Your task to perform on an android device: turn on notifications settings in the gmail app Image 0: 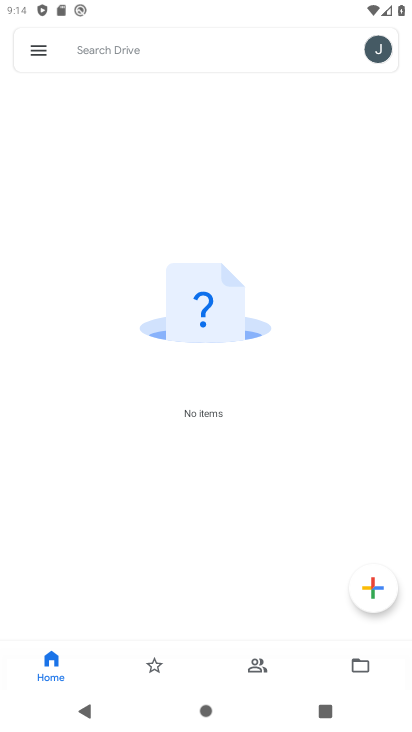
Step 0: press home button
Your task to perform on an android device: turn on notifications settings in the gmail app Image 1: 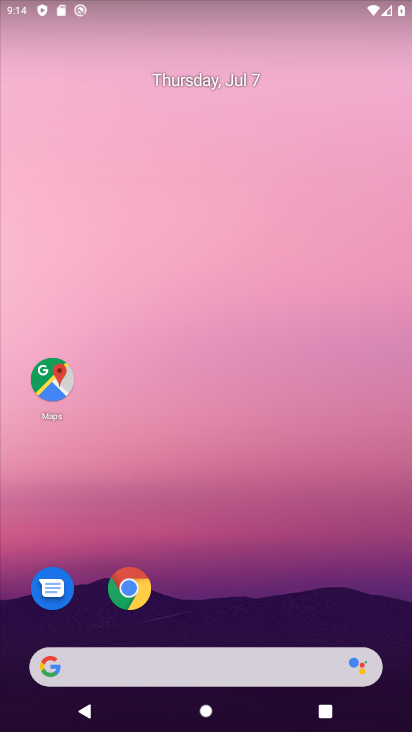
Step 1: drag from (303, 680) to (206, 222)
Your task to perform on an android device: turn on notifications settings in the gmail app Image 2: 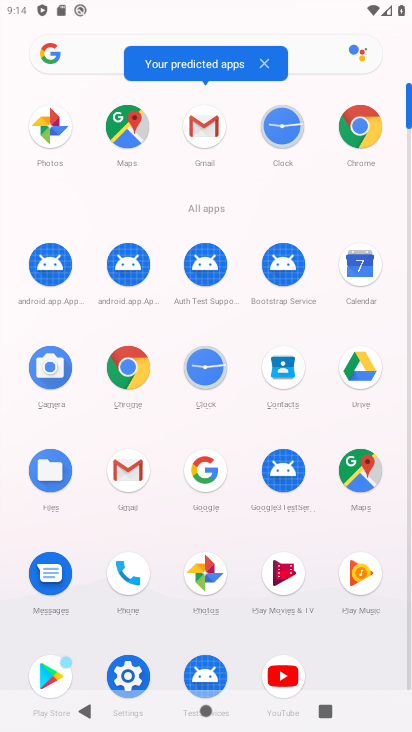
Step 2: drag from (201, 119) to (335, 639)
Your task to perform on an android device: turn on notifications settings in the gmail app Image 3: 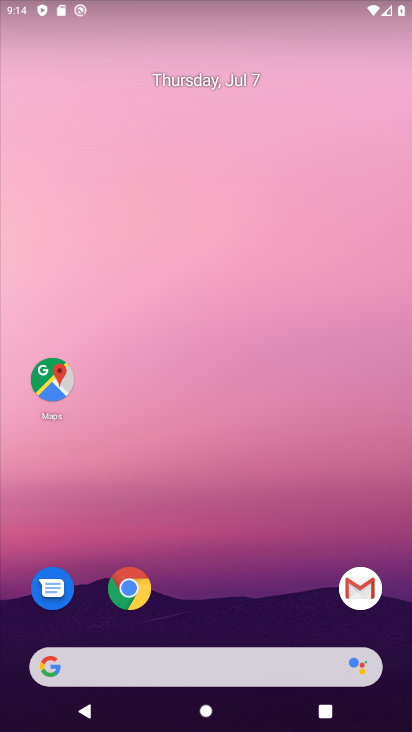
Step 3: click (358, 587)
Your task to perform on an android device: turn on notifications settings in the gmail app Image 4: 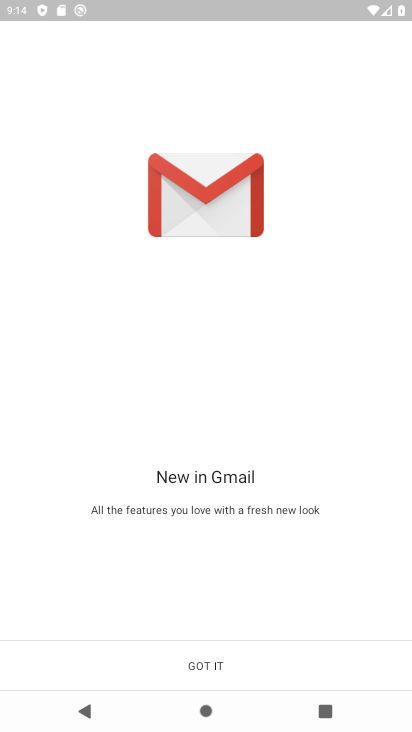
Step 4: click (207, 657)
Your task to perform on an android device: turn on notifications settings in the gmail app Image 5: 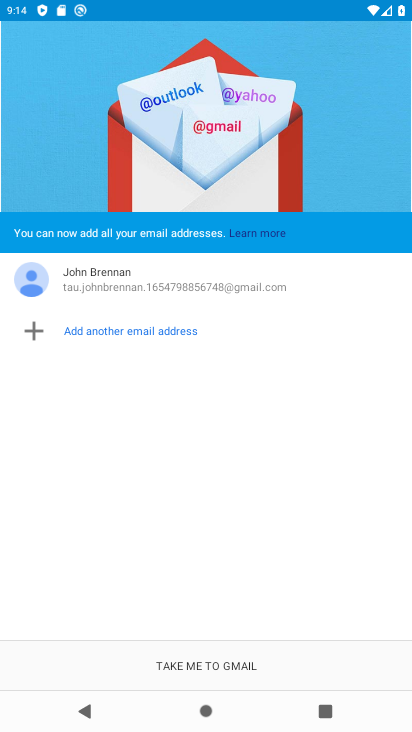
Step 5: click (210, 659)
Your task to perform on an android device: turn on notifications settings in the gmail app Image 6: 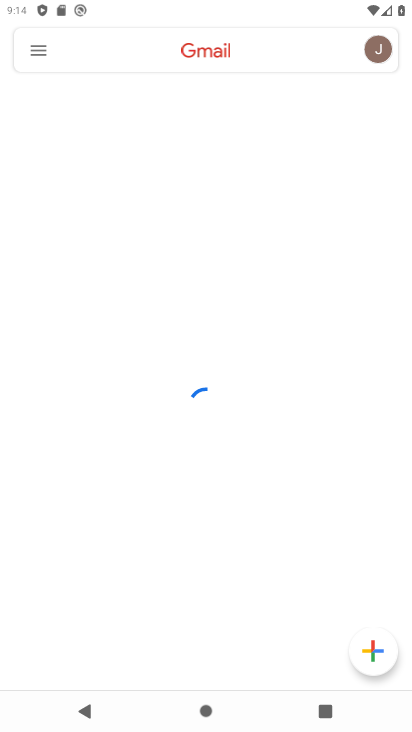
Step 6: click (35, 51)
Your task to perform on an android device: turn on notifications settings in the gmail app Image 7: 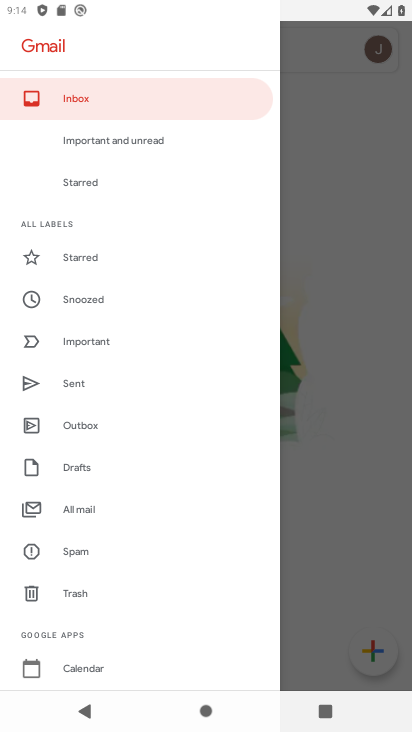
Step 7: drag from (67, 519) to (88, 410)
Your task to perform on an android device: turn on notifications settings in the gmail app Image 8: 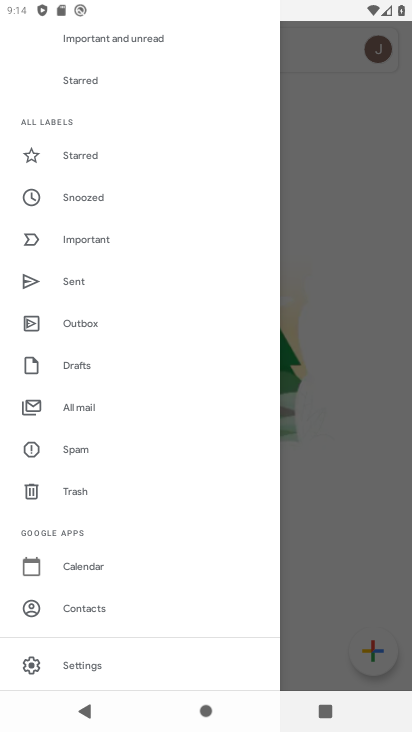
Step 8: click (82, 659)
Your task to perform on an android device: turn on notifications settings in the gmail app Image 9: 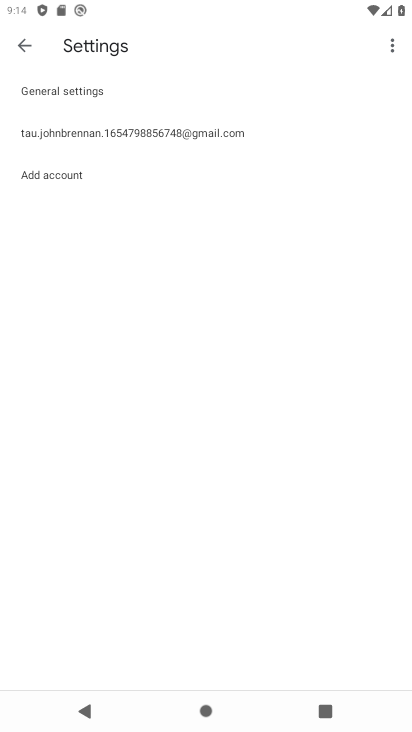
Step 9: click (91, 131)
Your task to perform on an android device: turn on notifications settings in the gmail app Image 10: 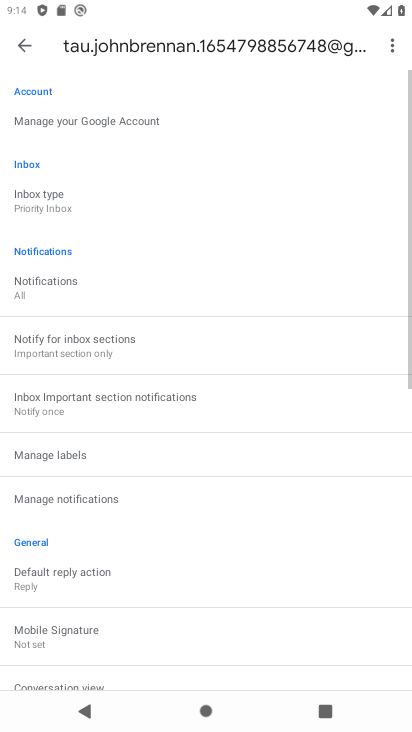
Step 10: click (73, 300)
Your task to perform on an android device: turn on notifications settings in the gmail app Image 11: 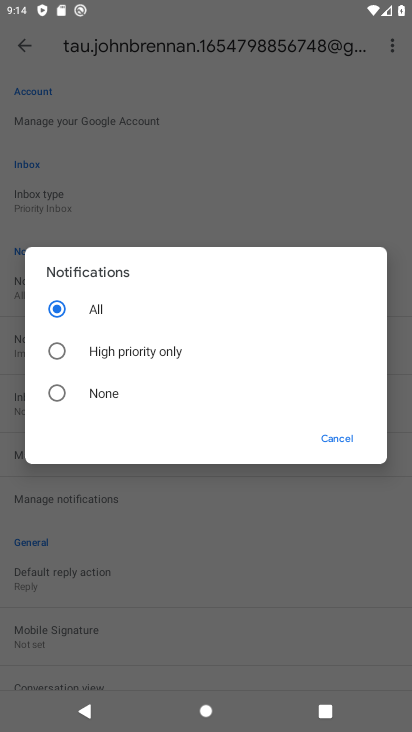
Step 11: task complete